Your task to perform on an android device: Go to notification settings Image 0: 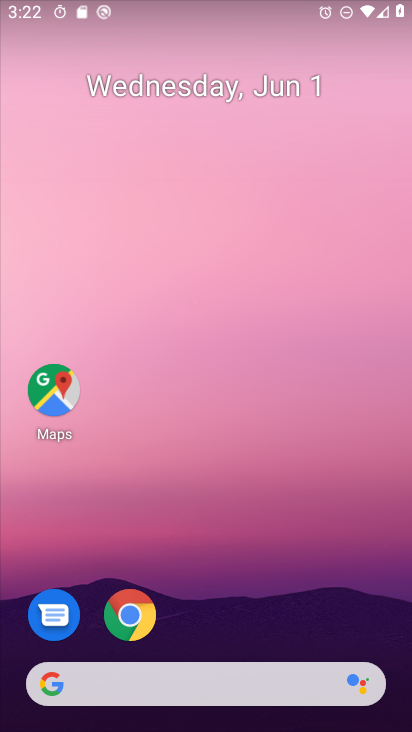
Step 0: press home button
Your task to perform on an android device: Go to notification settings Image 1: 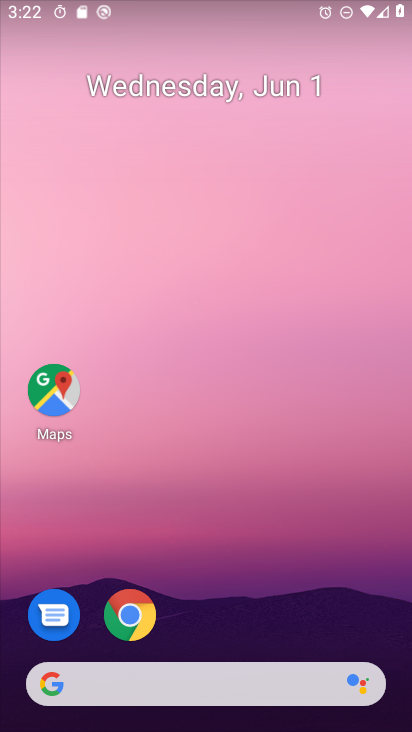
Step 1: drag from (256, 642) to (293, 0)
Your task to perform on an android device: Go to notification settings Image 2: 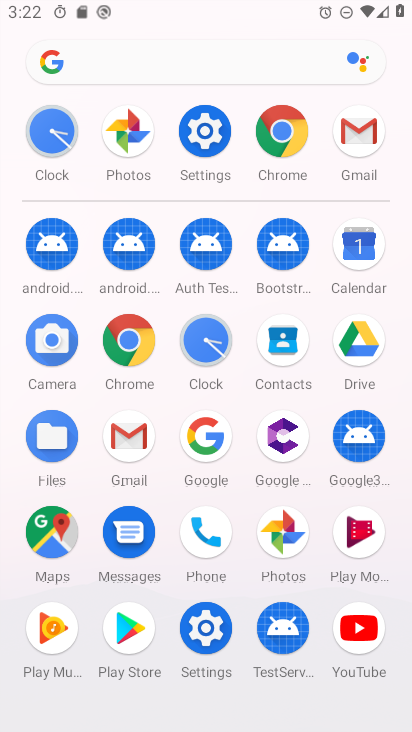
Step 2: click (202, 132)
Your task to perform on an android device: Go to notification settings Image 3: 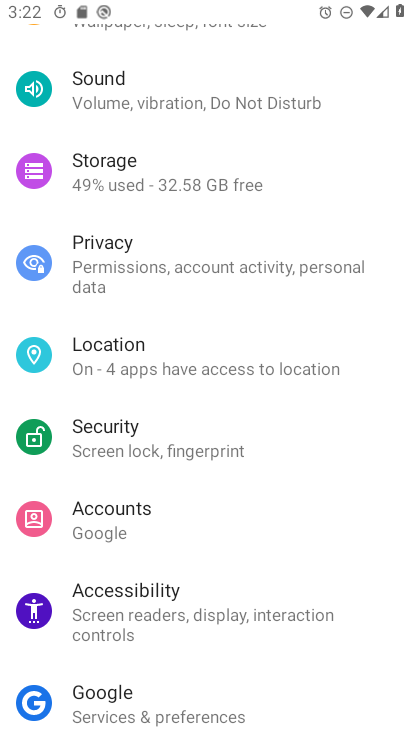
Step 3: drag from (222, 157) to (187, 714)
Your task to perform on an android device: Go to notification settings Image 4: 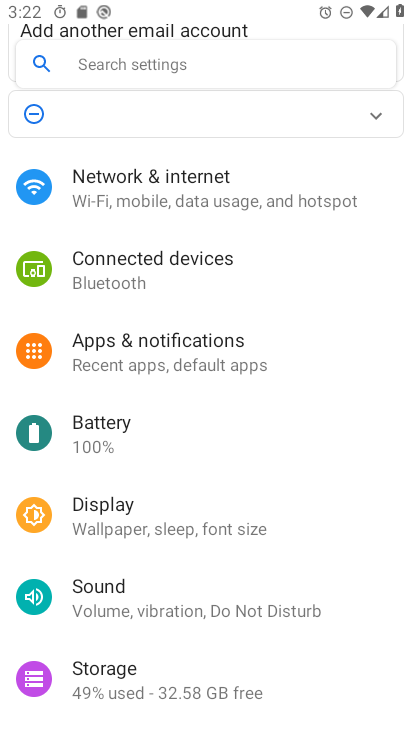
Step 4: click (213, 336)
Your task to perform on an android device: Go to notification settings Image 5: 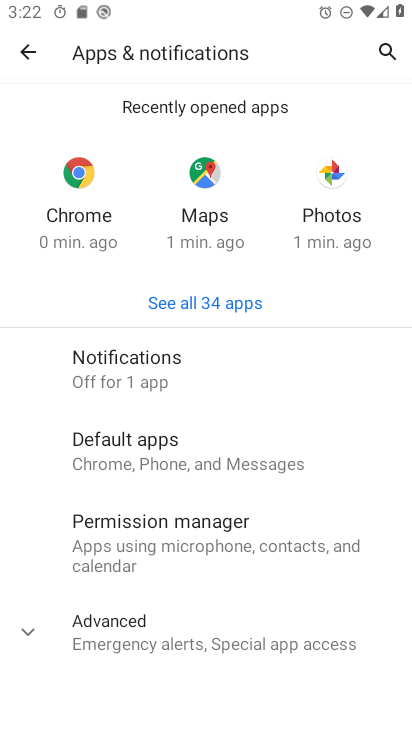
Step 5: task complete